Your task to perform on an android device: add a contact Image 0: 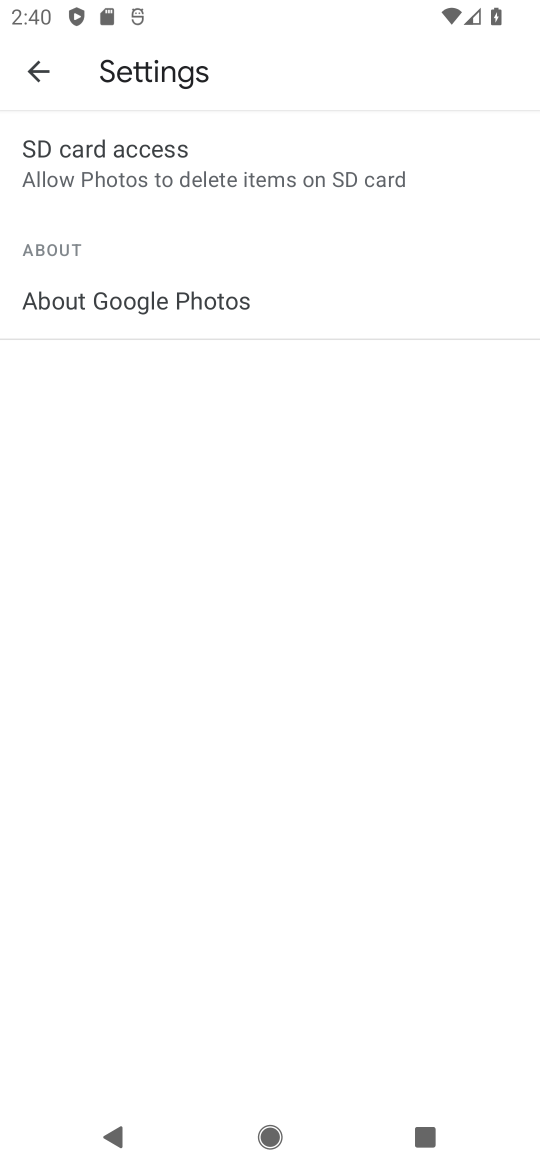
Step 0: press home button
Your task to perform on an android device: add a contact Image 1: 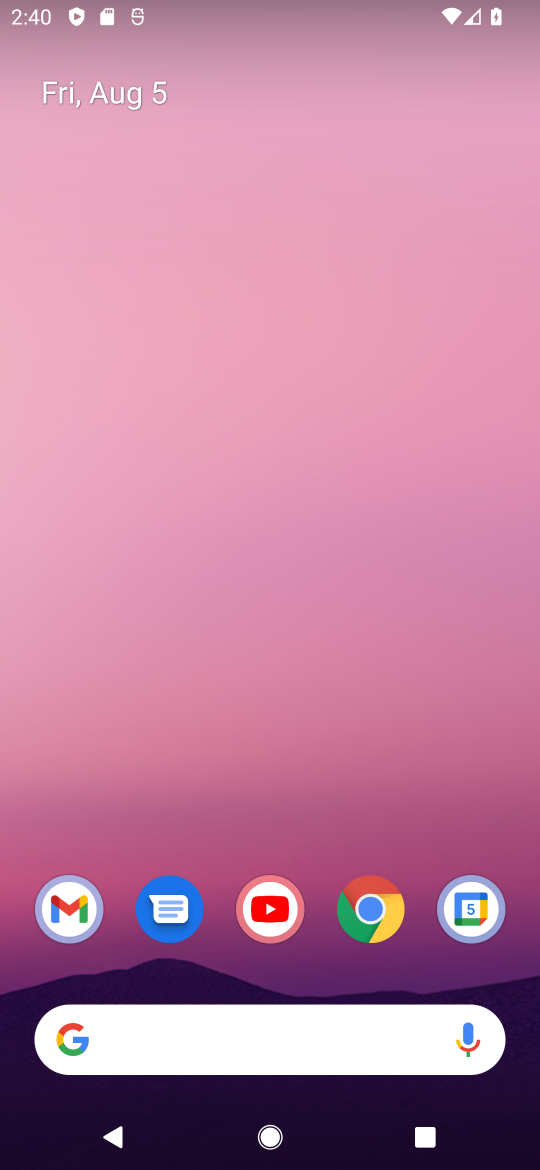
Step 1: drag from (235, 976) to (357, 151)
Your task to perform on an android device: add a contact Image 2: 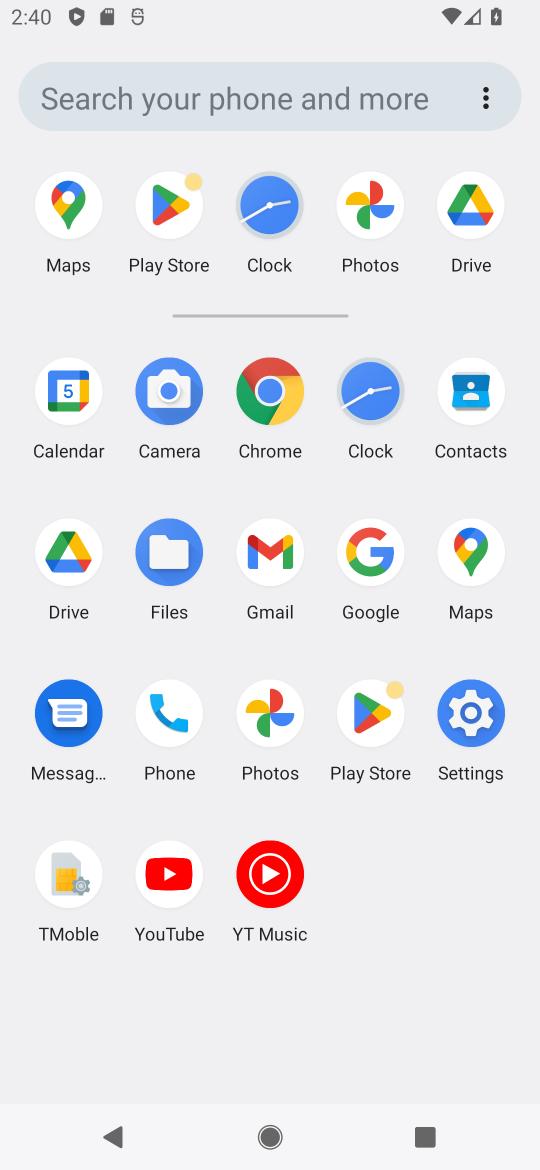
Step 2: click (461, 378)
Your task to perform on an android device: add a contact Image 3: 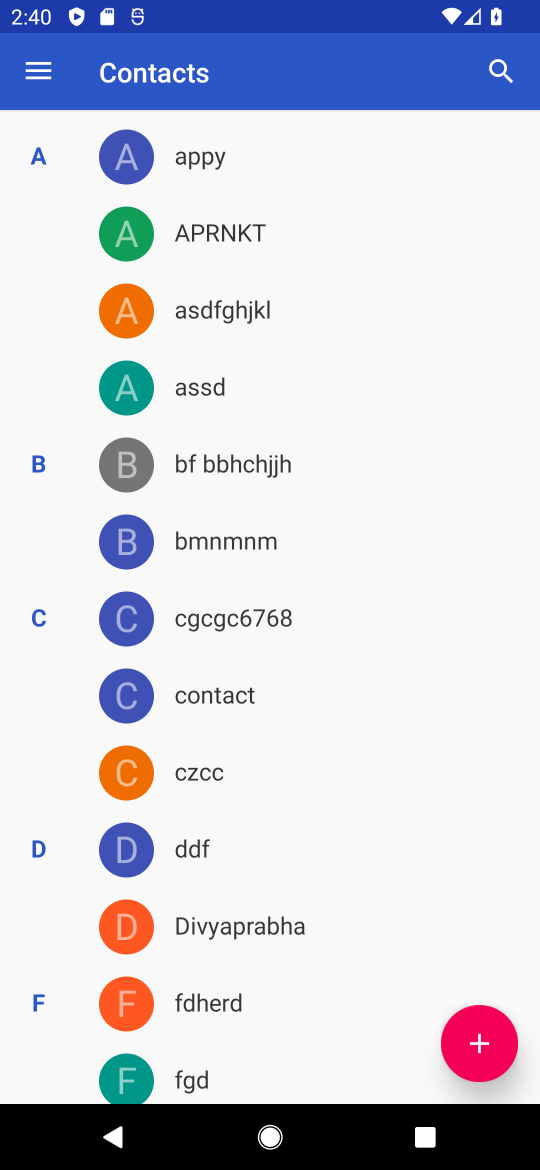
Step 3: click (475, 1035)
Your task to perform on an android device: add a contact Image 4: 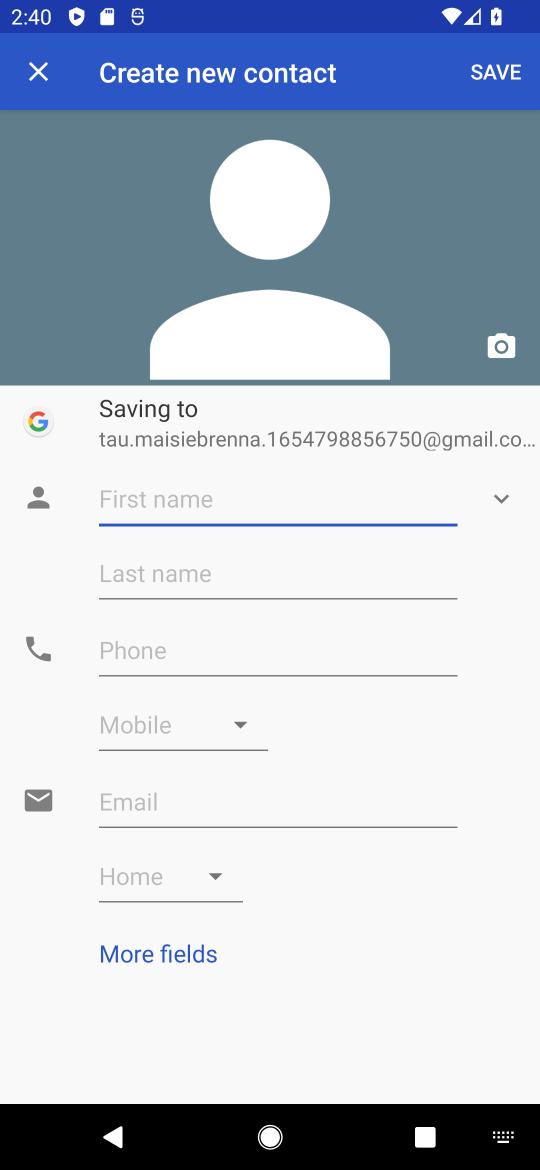
Step 4: type "dcs"
Your task to perform on an android device: add a contact Image 5: 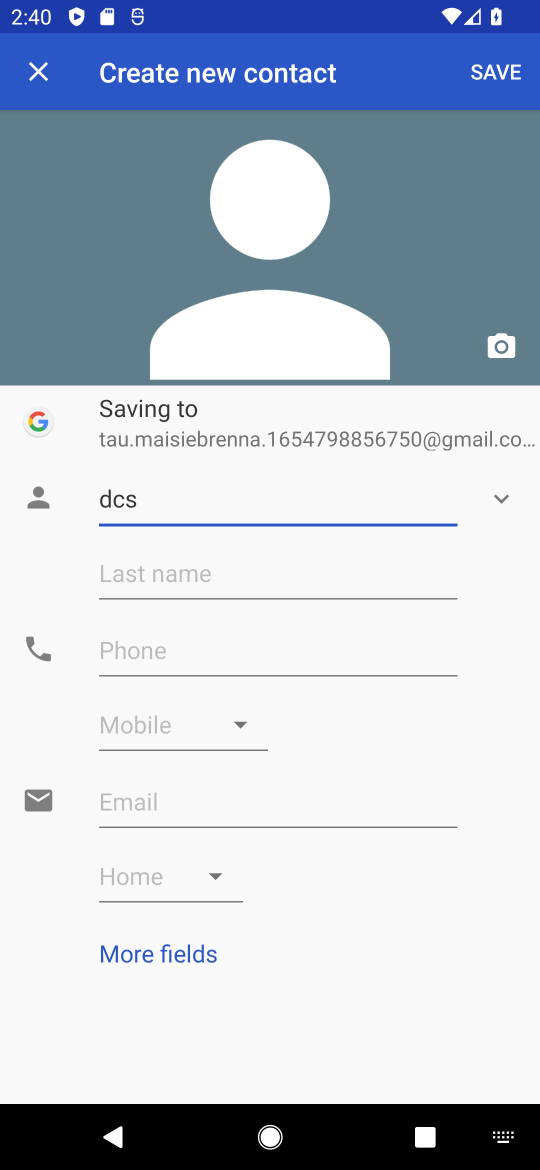
Step 5: click (289, 561)
Your task to perform on an android device: add a contact Image 6: 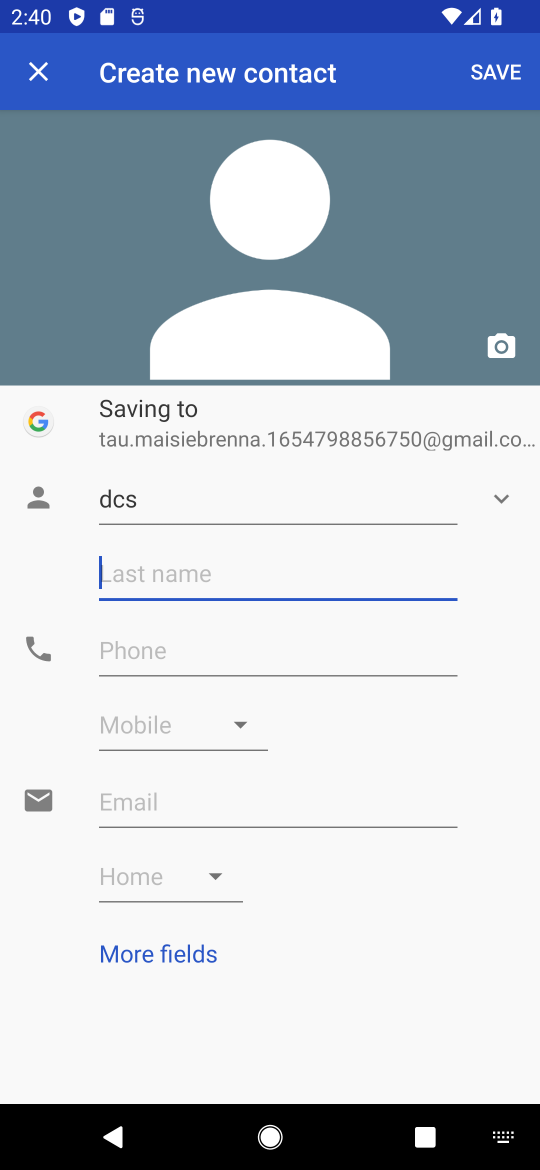
Step 6: type "efws"
Your task to perform on an android device: add a contact Image 7: 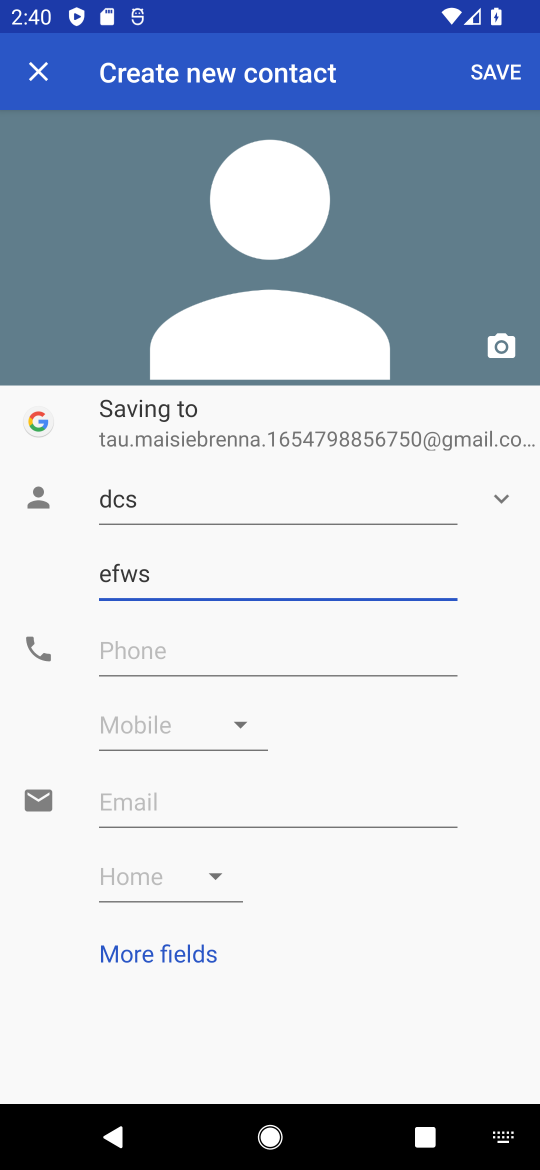
Step 7: click (408, 638)
Your task to perform on an android device: add a contact Image 8: 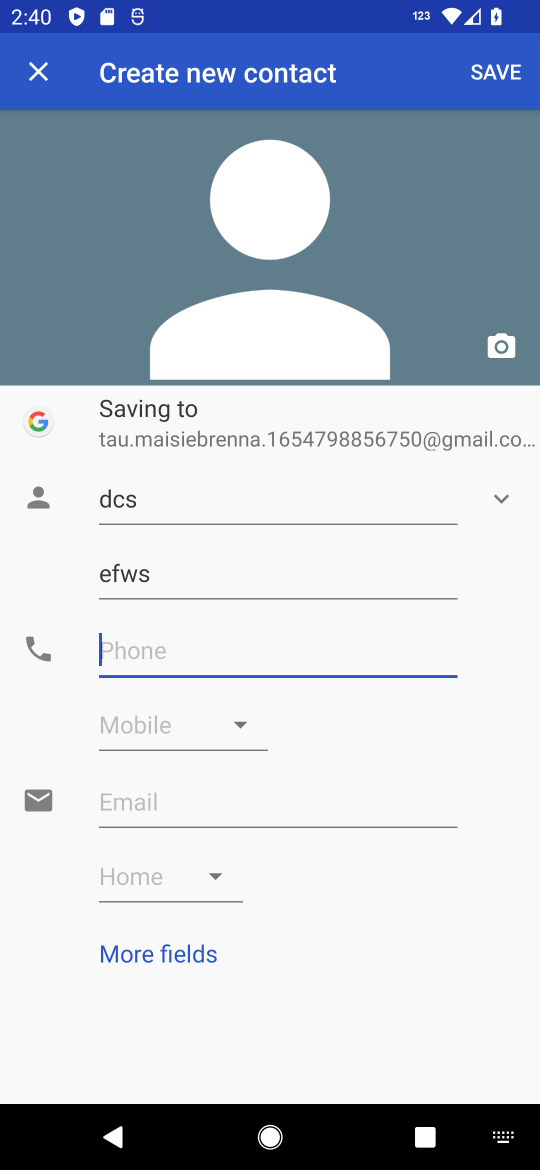
Step 8: type "2134567890"
Your task to perform on an android device: add a contact Image 9: 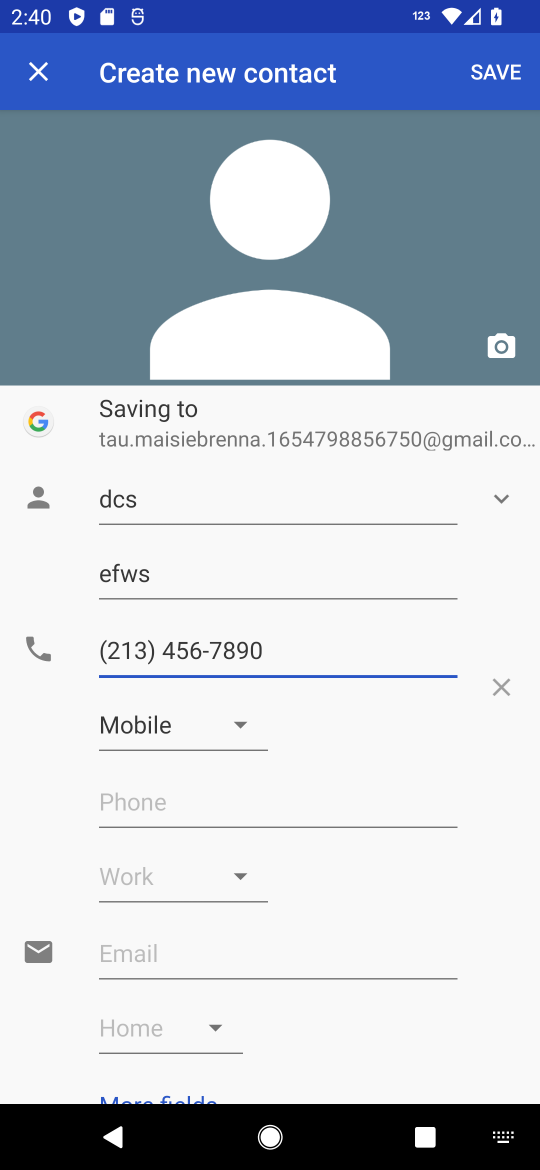
Step 9: click (523, 64)
Your task to perform on an android device: add a contact Image 10: 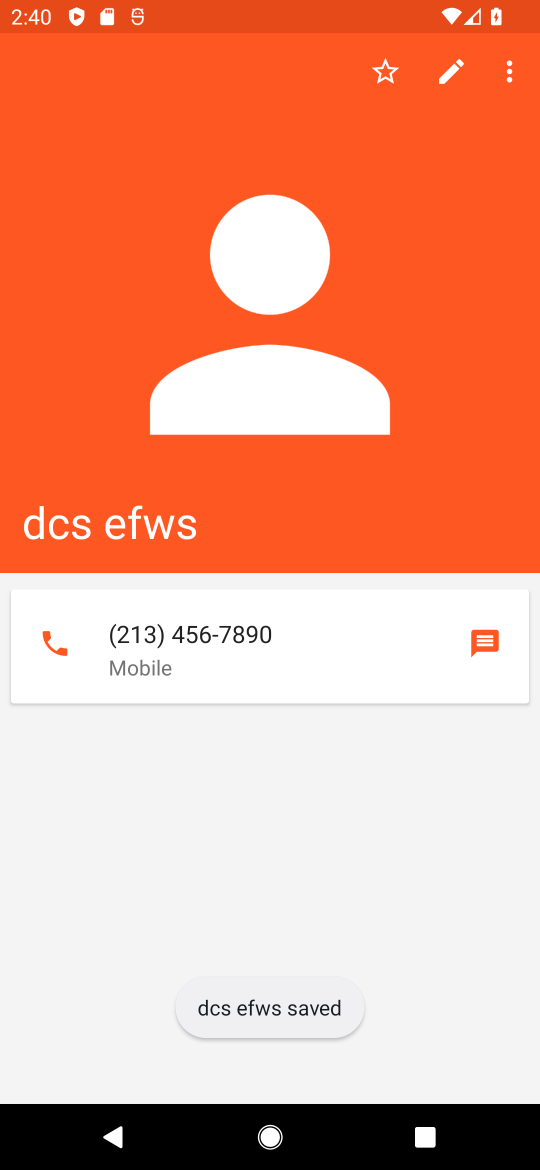
Step 10: task complete